Your task to perform on an android device: turn off sleep mode Image 0: 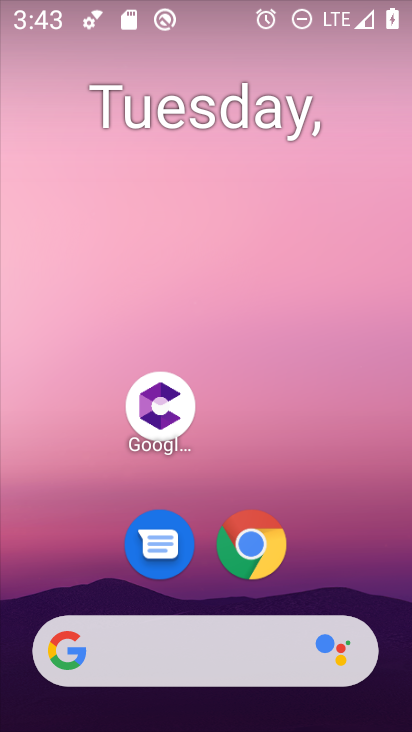
Step 0: drag from (369, 492) to (379, 115)
Your task to perform on an android device: turn off sleep mode Image 1: 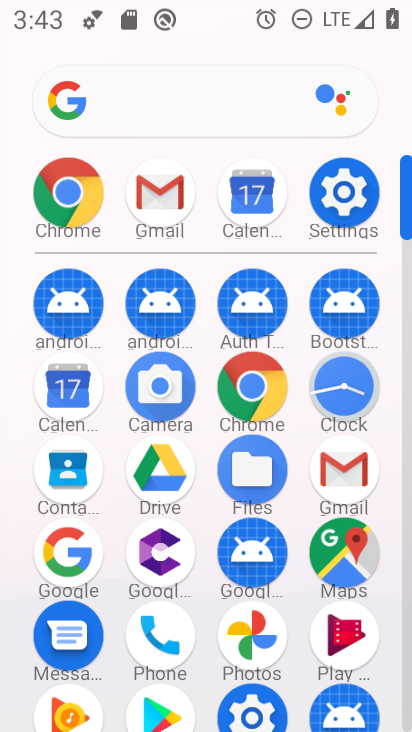
Step 1: click (356, 205)
Your task to perform on an android device: turn off sleep mode Image 2: 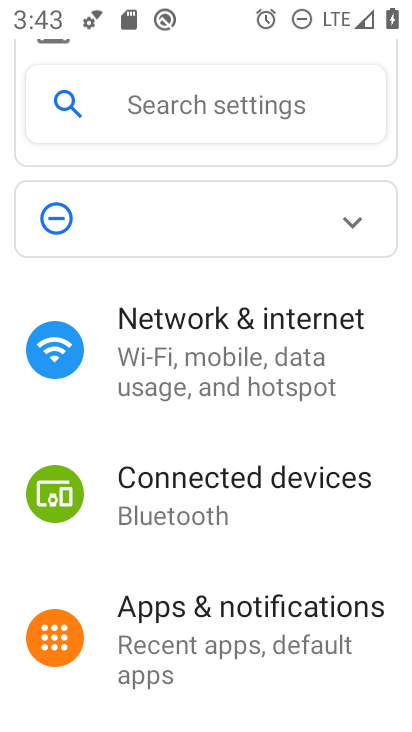
Step 2: drag from (379, 567) to (393, 352)
Your task to perform on an android device: turn off sleep mode Image 3: 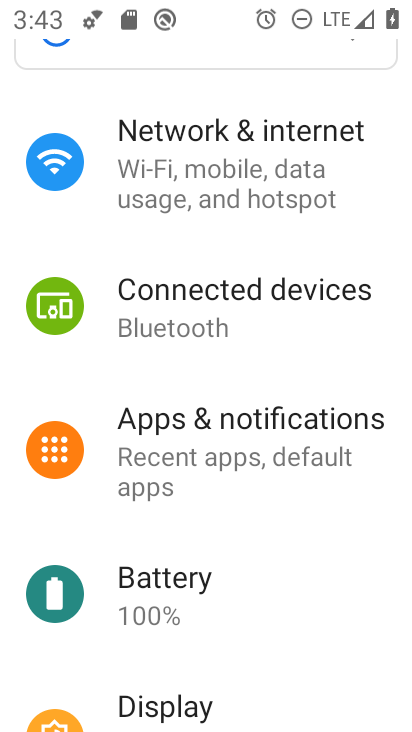
Step 3: drag from (354, 471) to (346, 294)
Your task to perform on an android device: turn off sleep mode Image 4: 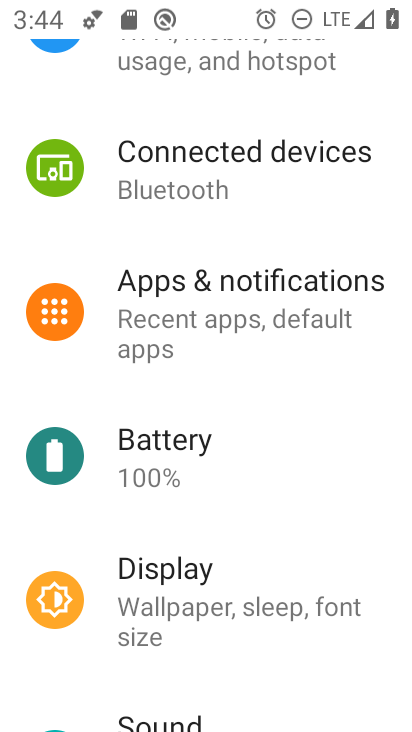
Step 4: drag from (330, 508) to (352, 320)
Your task to perform on an android device: turn off sleep mode Image 5: 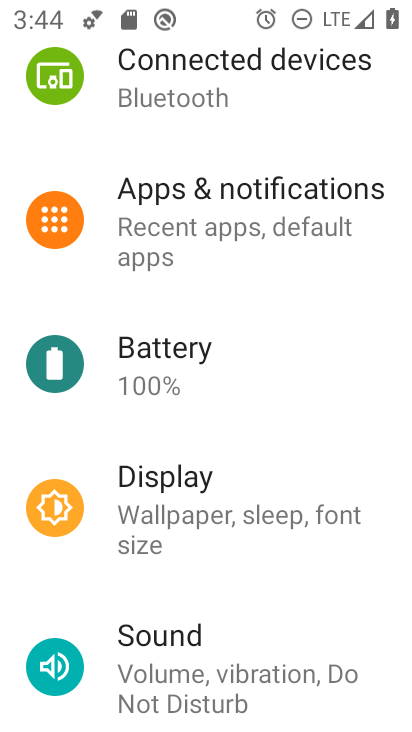
Step 5: drag from (315, 445) to (307, 350)
Your task to perform on an android device: turn off sleep mode Image 6: 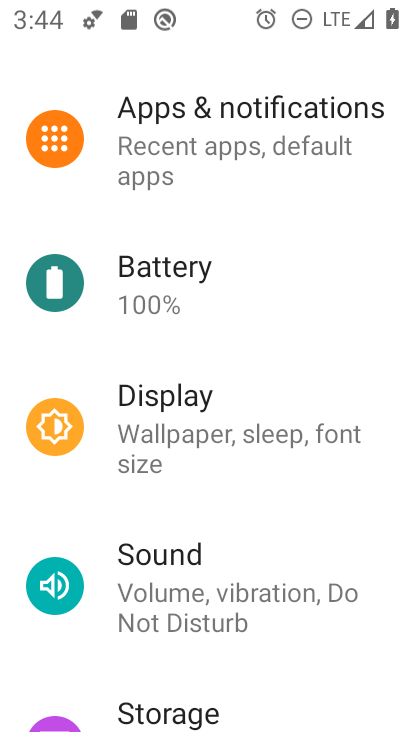
Step 6: drag from (303, 461) to (318, 364)
Your task to perform on an android device: turn off sleep mode Image 7: 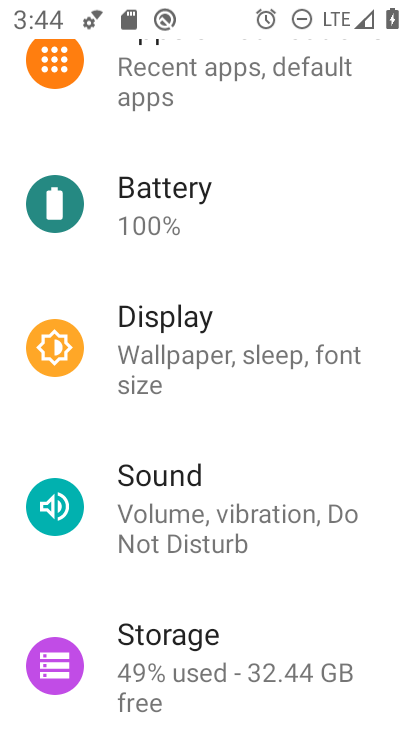
Step 7: click (281, 353)
Your task to perform on an android device: turn off sleep mode Image 8: 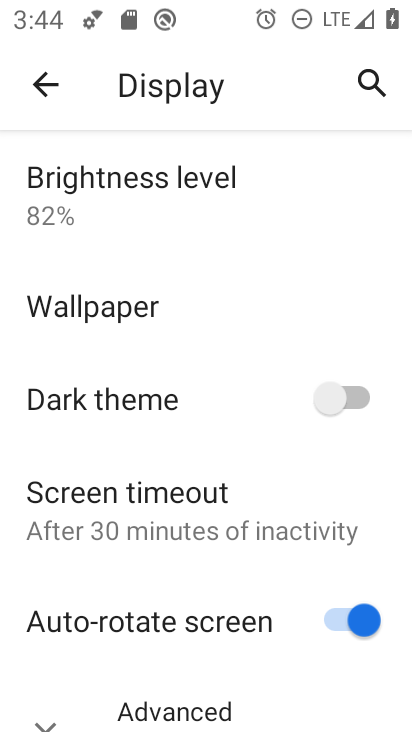
Step 8: drag from (268, 467) to (279, 316)
Your task to perform on an android device: turn off sleep mode Image 9: 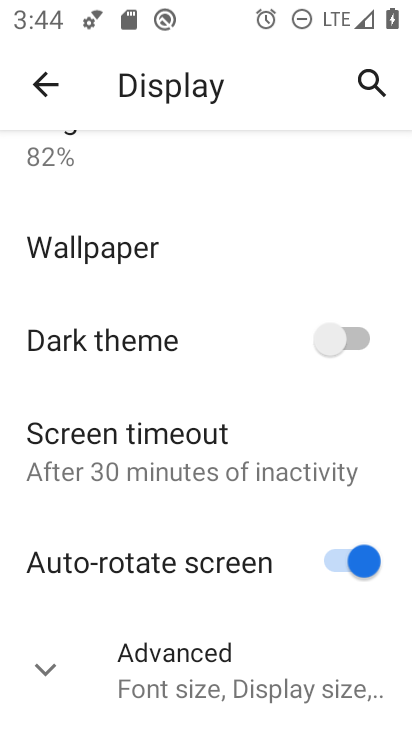
Step 9: drag from (284, 576) to (288, 380)
Your task to perform on an android device: turn off sleep mode Image 10: 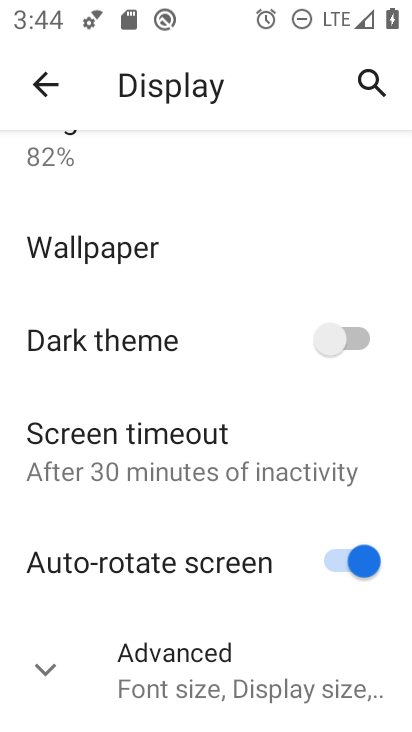
Step 10: click (173, 688)
Your task to perform on an android device: turn off sleep mode Image 11: 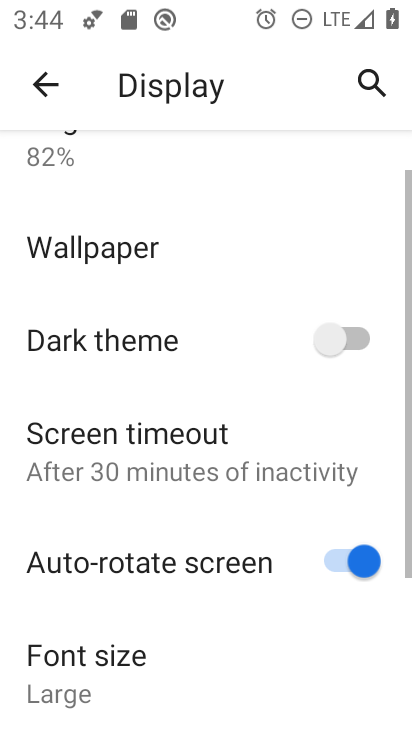
Step 11: task complete